Your task to perform on an android device: Show me recent news Image 0: 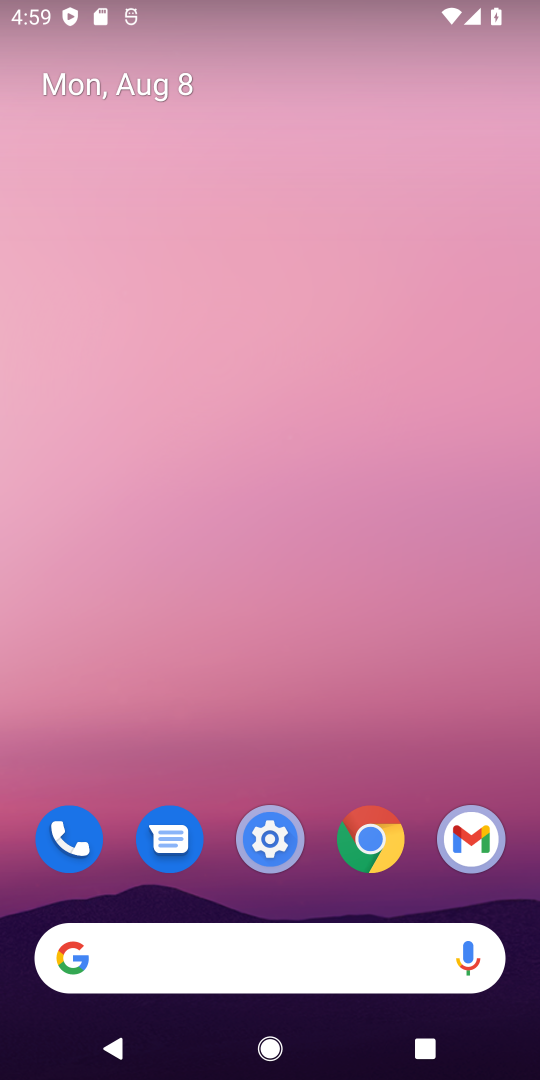
Step 0: click (212, 955)
Your task to perform on an android device: Show me recent news Image 1: 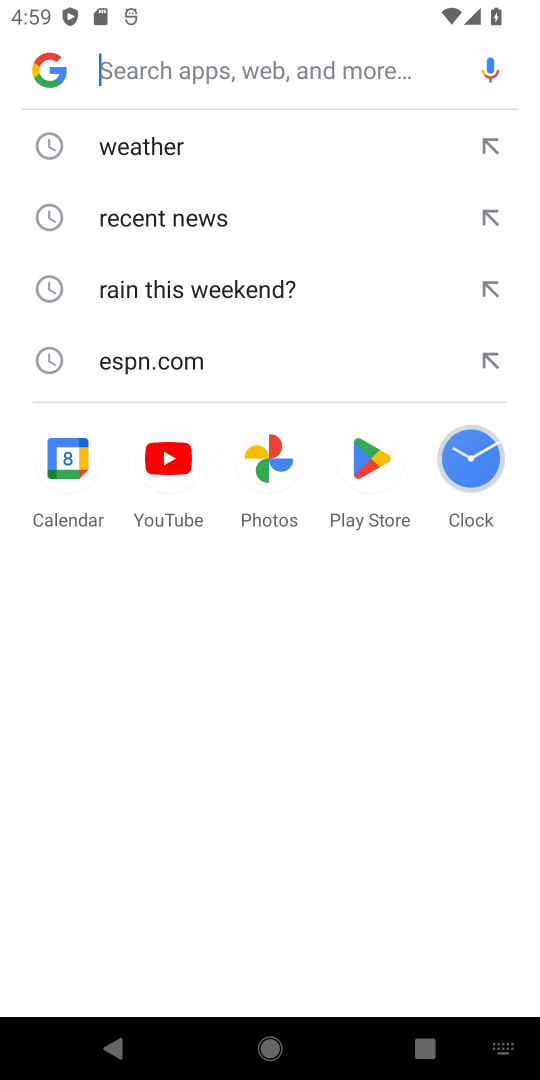
Step 1: click (194, 222)
Your task to perform on an android device: Show me recent news Image 2: 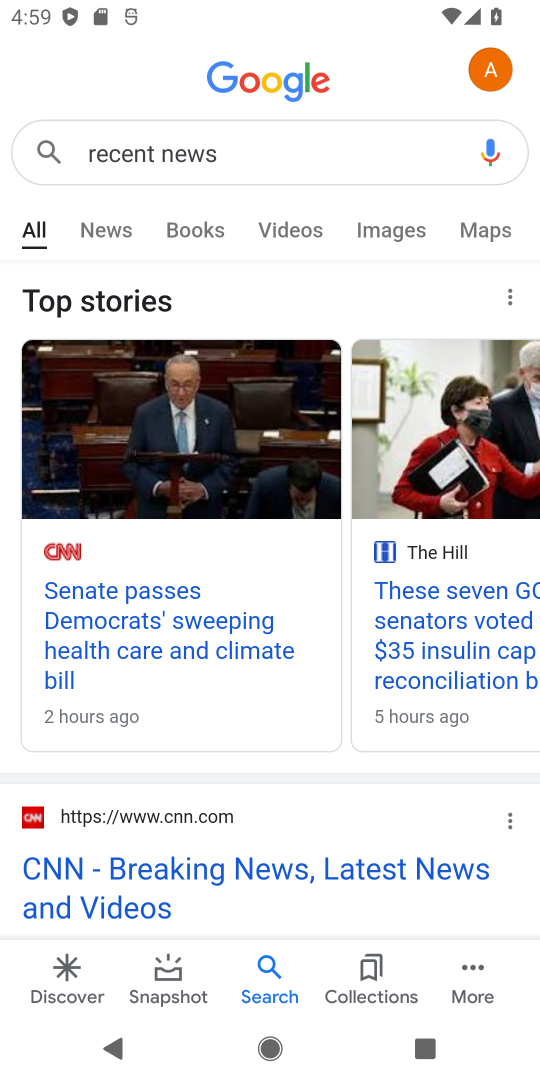
Step 2: task complete